Your task to perform on an android device: all mails in gmail Image 0: 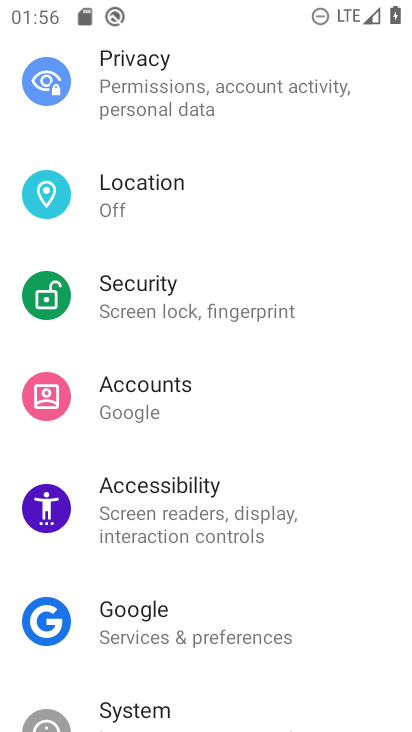
Step 0: press home button
Your task to perform on an android device: all mails in gmail Image 1: 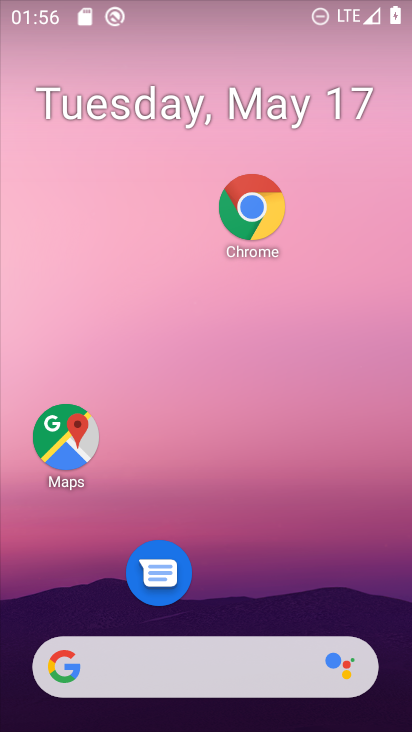
Step 1: drag from (266, 642) to (271, 26)
Your task to perform on an android device: all mails in gmail Image 2: 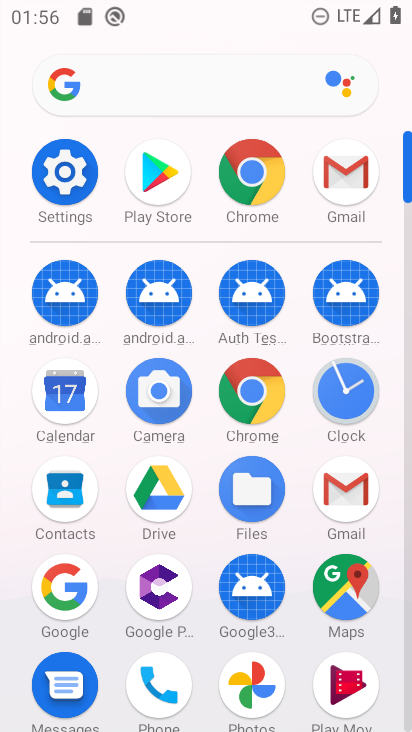
Step 2: click (342, 505)
Your task to perform on an android device: all mails in gmail Image 3: 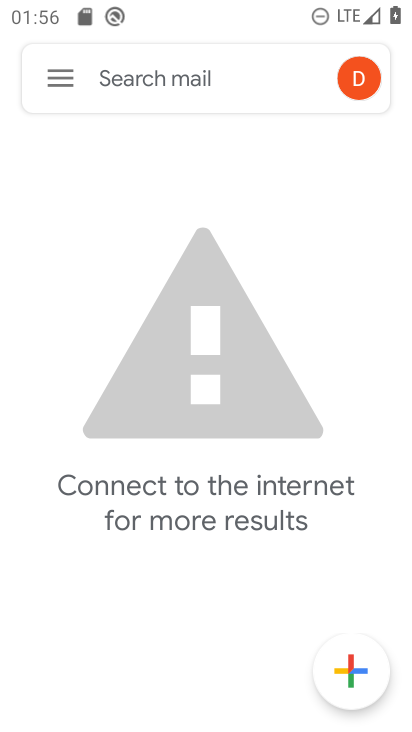
Step 3: click (73, 83)
Your task to perform on an android device: all mails in gmail Image 4: 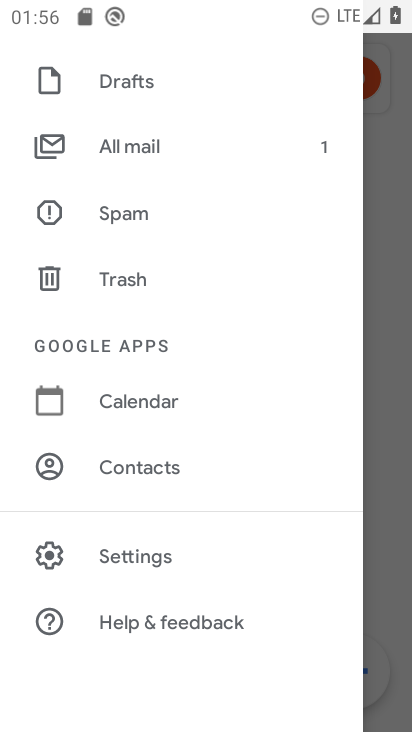
Step 4: click (176, 154)
Your task to perform on an android device: all mails in gmail Image 5: 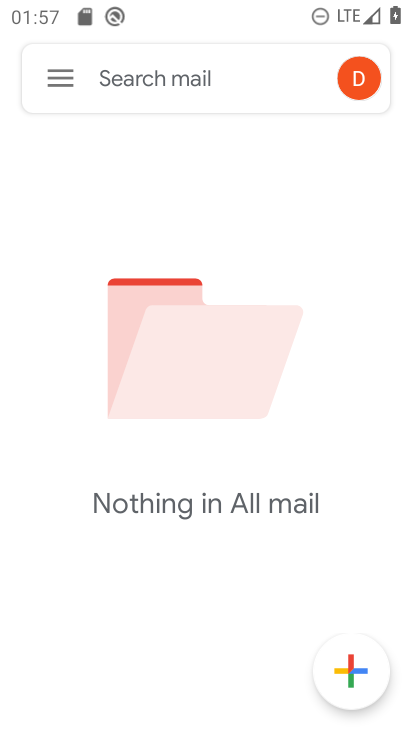
Step 5: task complete